Your task to perform on an android device: Open calendar and show me the fourth week of next month Image 0: 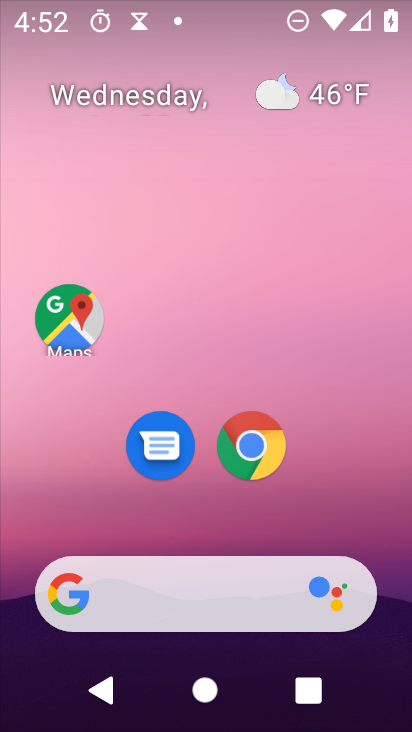
Step 0: drag from (213, 523) to (239, 25)
Your task to perform on an android device: Open calendar and show me the fourth week of next month Image 1: 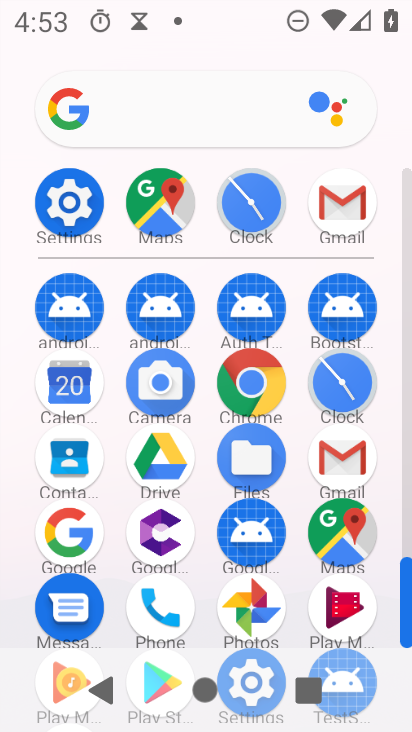
Step 1: click (75, 389)
Your task to perform on an android device: Open calendar and show me the fourth week of next month Image 2: 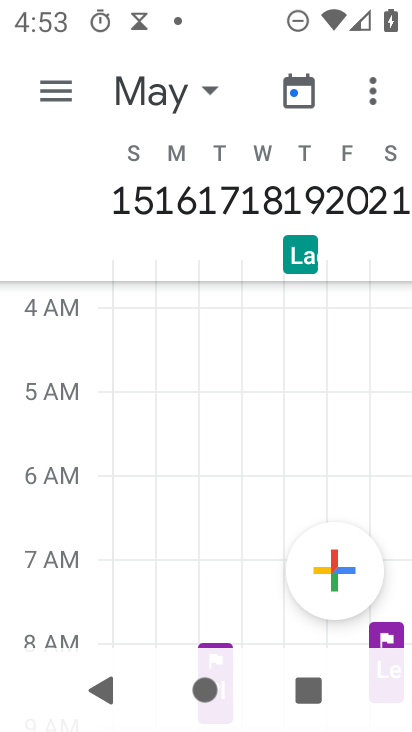
Step 2: click (301, 95)
Your task to perform on an android device: Open calendar and show me the fourth week of next month Image 3: 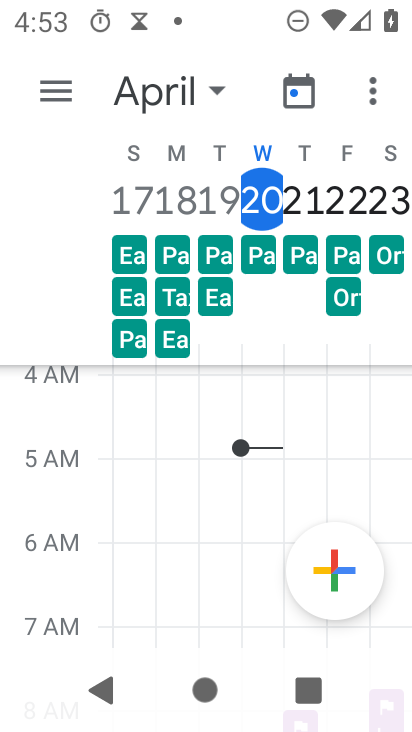
Step 3: click (214, 88)
Your task to perform on an android device: Open calendar and show me the fourth week of next month Image 4: 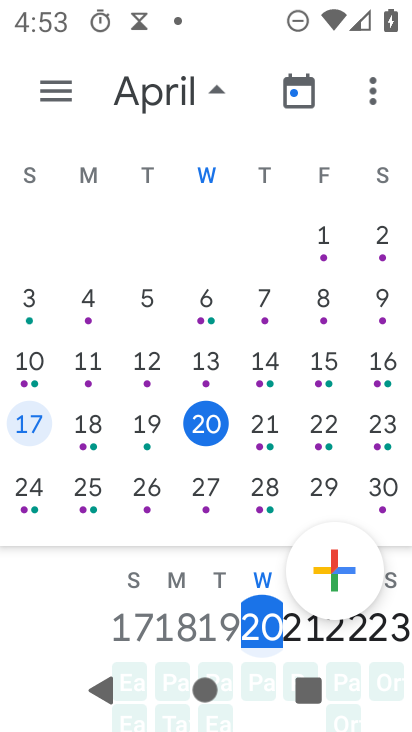
Step 4: drag from (359, 397) to (0, 400)
Your task to perform on an android device: Open calendar and show me the fourth week of next month Image 5: 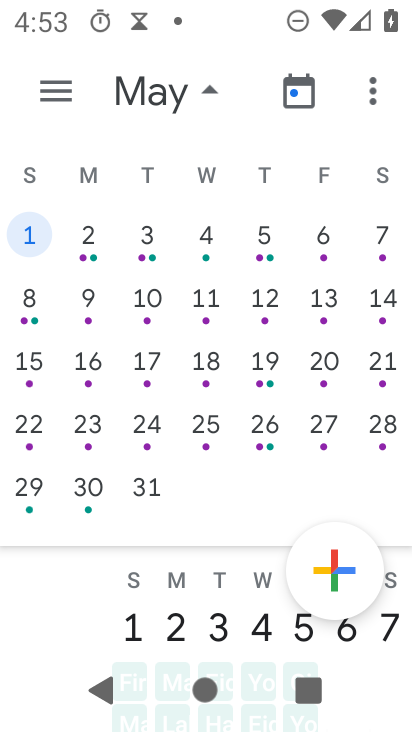
Step 5: click (91, 422)
Your task to perform on an android device: Open calendar and show me the fourth week of next month Image 6: 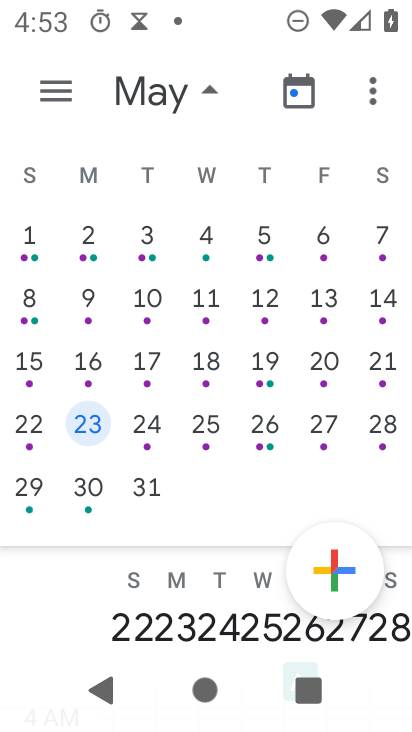
Step 6: click (61, 99)
Your task to perform on an android device: Open calendar and show me the fourth week of next month Image 7: 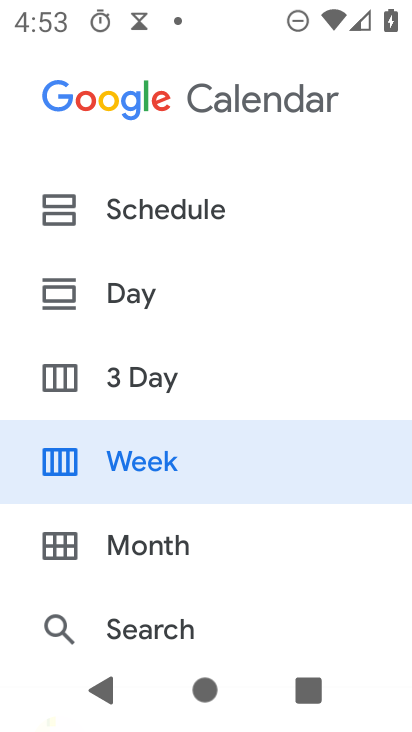
Step 7: click (139, 448)
Your task to perform on an android device: Open calendar and show me the fourth week of next month Image 8: 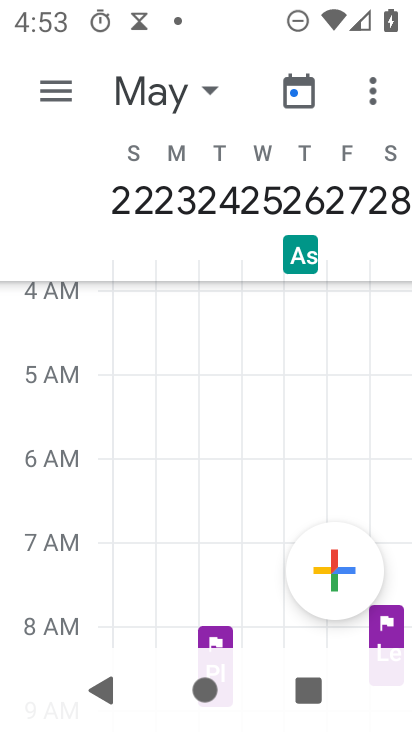
Step 8: task complete